Your task to perform on an android device: What's the weather going to be tomorrow? Image 0: 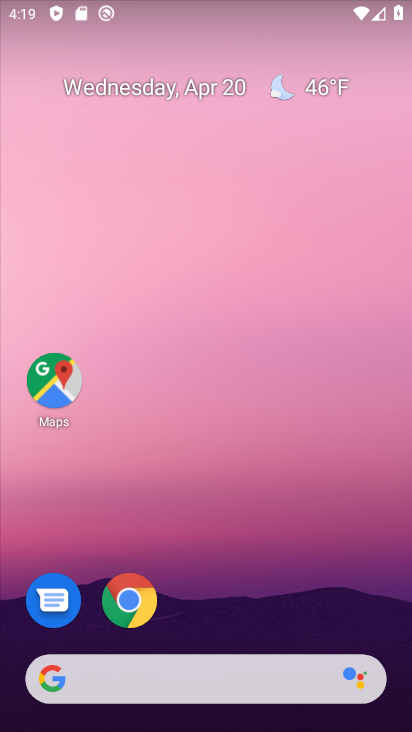
Step 0: drag from (218, 637) to (218, 49)
Your task to perform on an android device: What's the weather going to be tomorrow? Image 1: 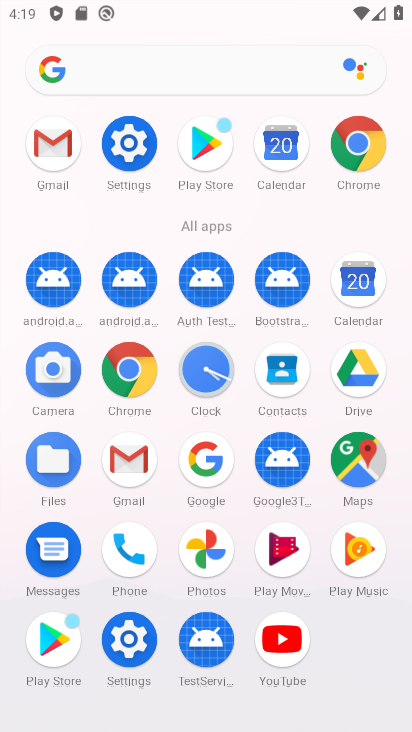
Step 1: press back button
Your task to perform on an android device: What's the weather going to be tomorrow? Image 2: 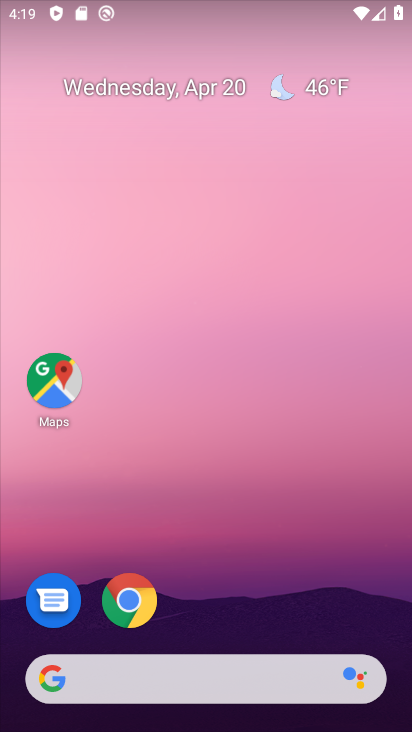
Step 2: click (290, 82)
Your task to perform on an android device: What's the weather going to be tomorrow? Image 3: 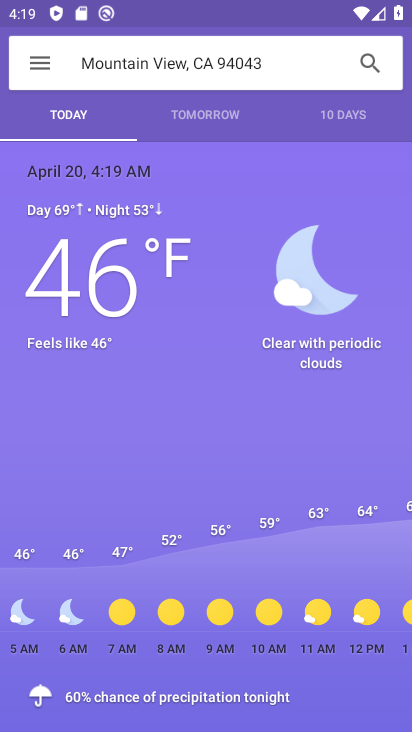
Step 3: click (206, 119)
Your task to perform on an android device: What's the weather going to be tomorrow? Image 4: 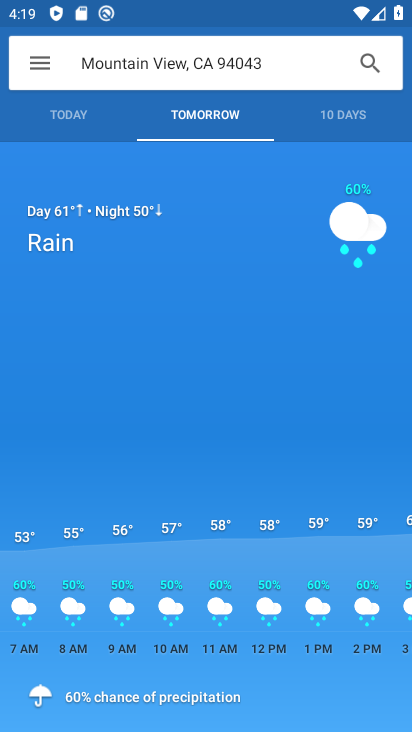
Step 4: task complete